Your task to perform on an android device: What's the weather going to be tomorrow? Image 0: 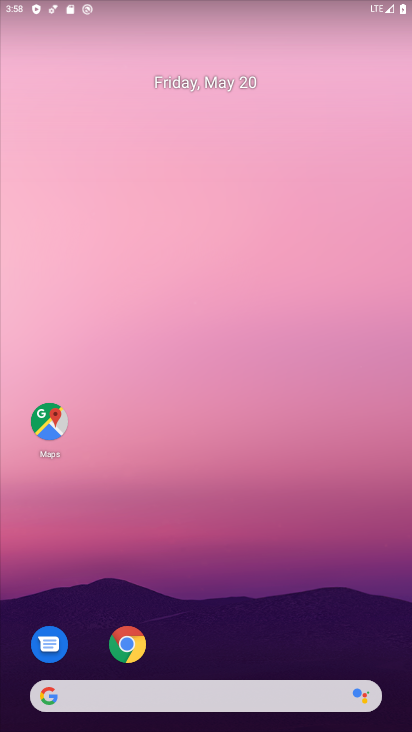
Step 0: drag from (283, 615) to (262, 142)
Your task to perform on an android device: What's the weather going to be tomorrow? Image 1: 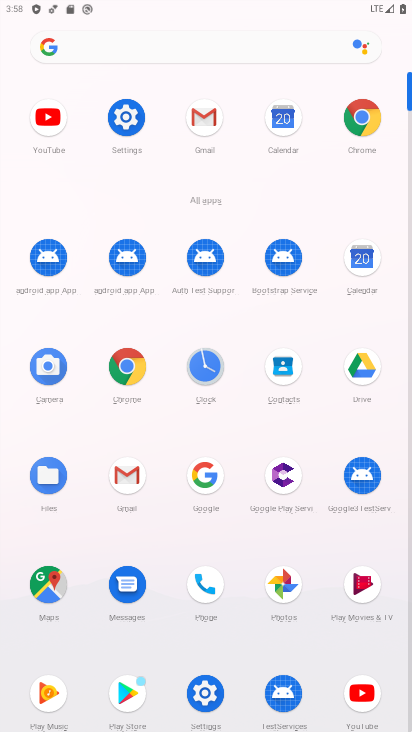
Step 1: click (81, 46)
Your task to perform on an android device: What's the weather going to be tomorrow? Image 2: 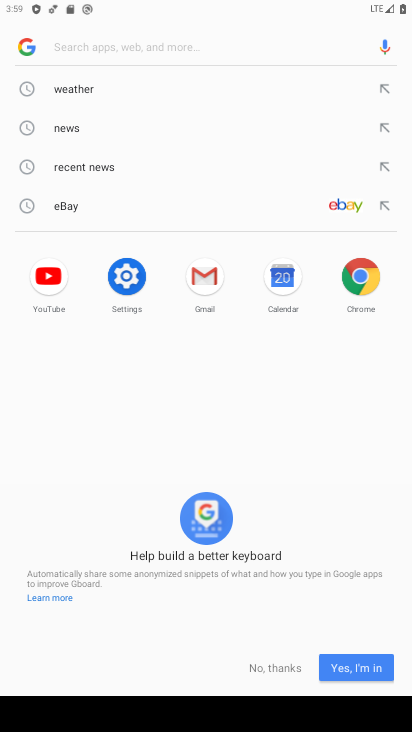
Step 2: click (81, 84)
Your task to perform on an android device: What's the weather going to be tomorrow? Image 3: 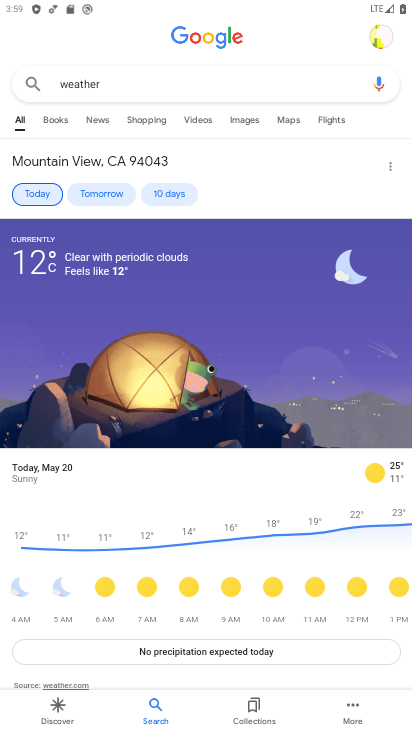
Step 3: click (82, 190)
Your task to perform on an android device: What's the weather going to be tomorrow? Image 4: 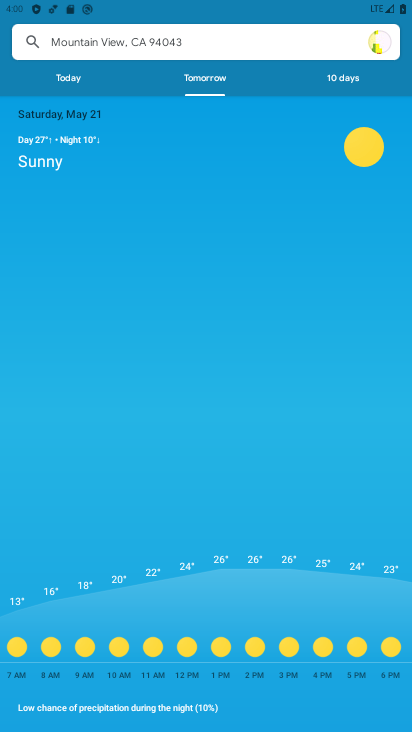
Step 4: task complete